Your task to perform on an android device: Open calendar and show me the fourth week of next month Image 0: 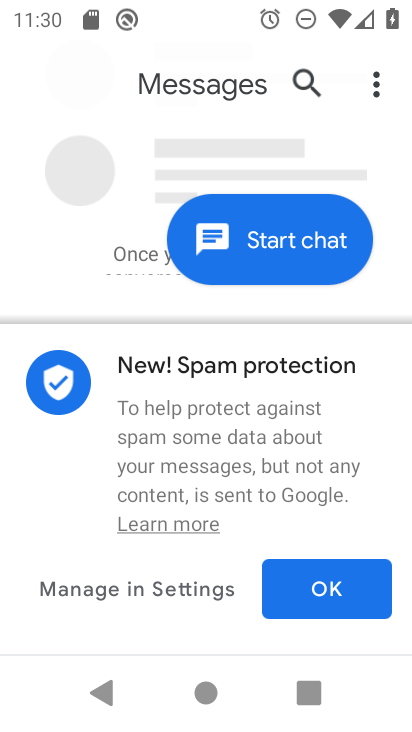
Step 0: press home button
Your task to perform on an android device: Open calendar and show me the fourth week of next month Image 1: 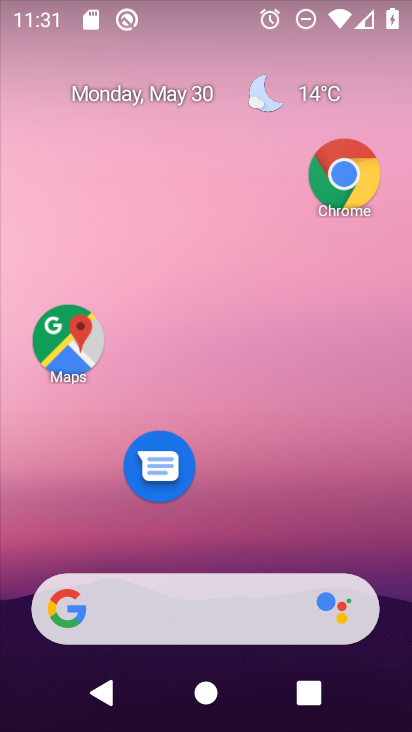
Step 1: drag from (261, 480) to (247, 34)
Your task to perform on an android device: Open calendar and show me the fourth week of next month Image 2: 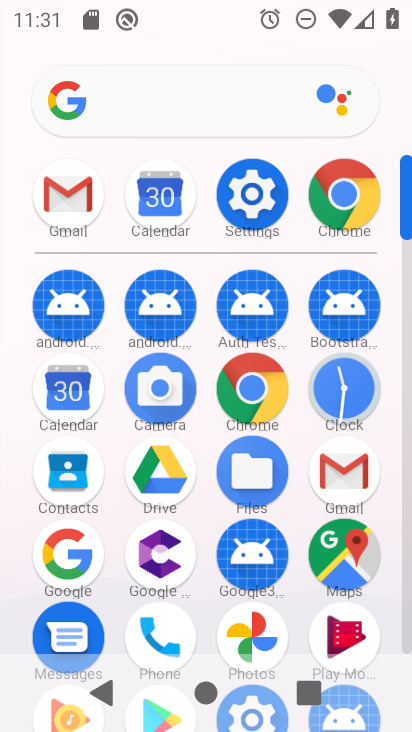
Step 2: click (144, 179)
Your task to perform on an android device: Open calendar and show me the fourth week of next month Image 3: 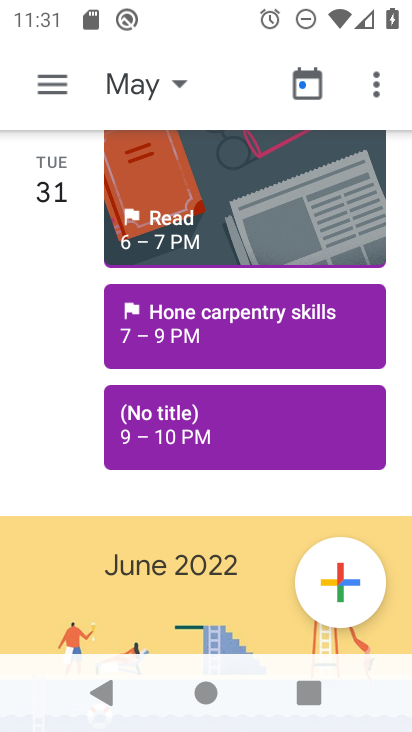
Step 3: click (32, 89)
Your task to perform on an android device: Open calendar and show me the fourth week of next month Image 4: 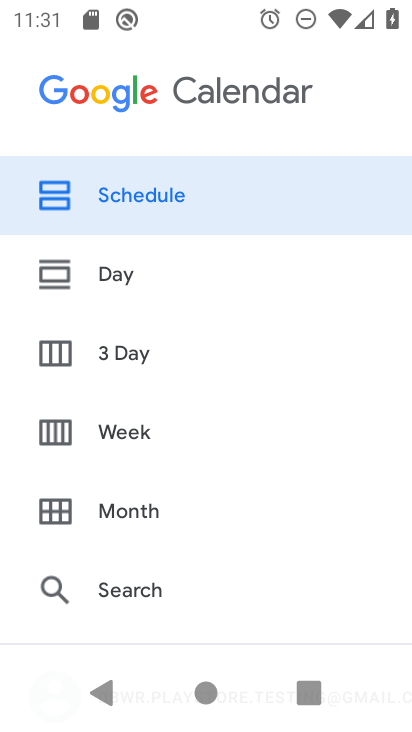
Step 4: click (140, 507)
Your task to perform on an android device: Open calendar and show me the fourth week of next month Image 5: 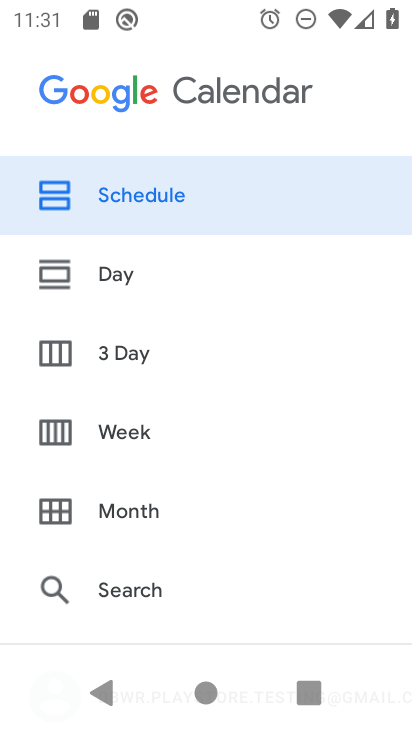
Step 5: click (143, 503)
Your task to perform on an android device: Open calendar and show me the fourth week of next month Image 6: 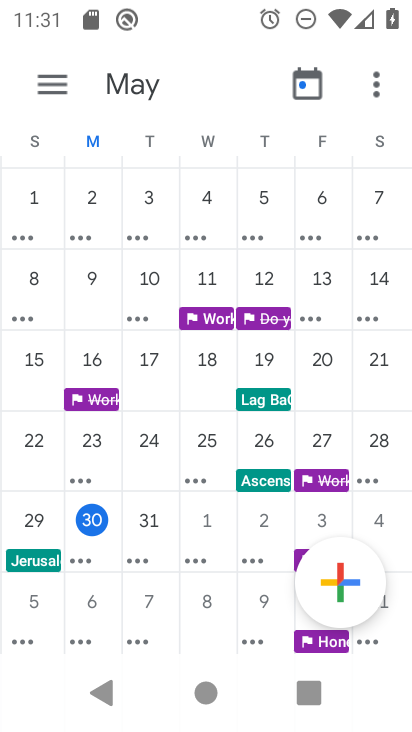
Step 6: task complete